Your task to perform on an android device: What is the recent news? Image 0: 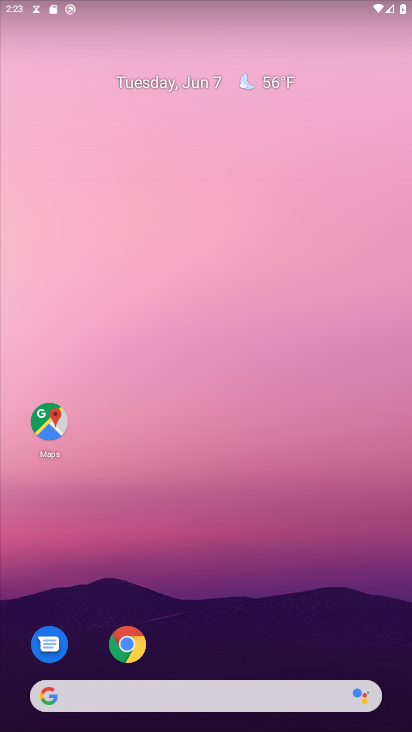
Step 0: press home button
Your task to perform on an android device: What is the recent news? Image 1: 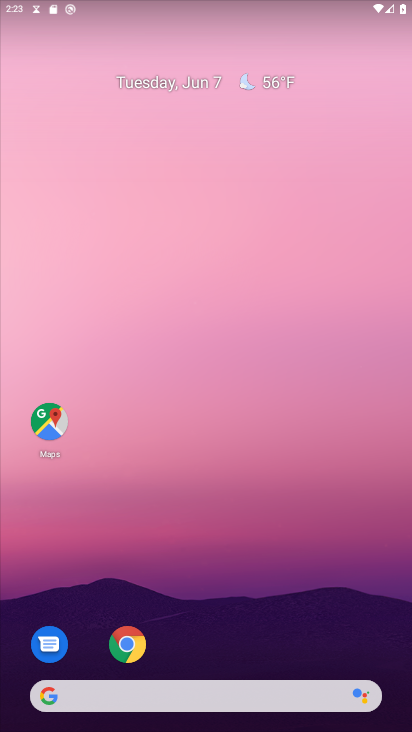
Step 1: drag from (229, 647) to (289, 31)
Your task to perform on an android device: What is the recent news? Image 2: 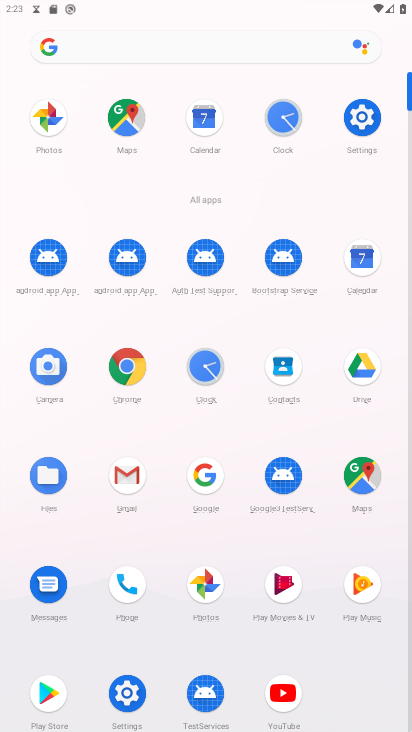
Step 2: press home button
Your task to perform on an android device: What is the recent news? Image 3: 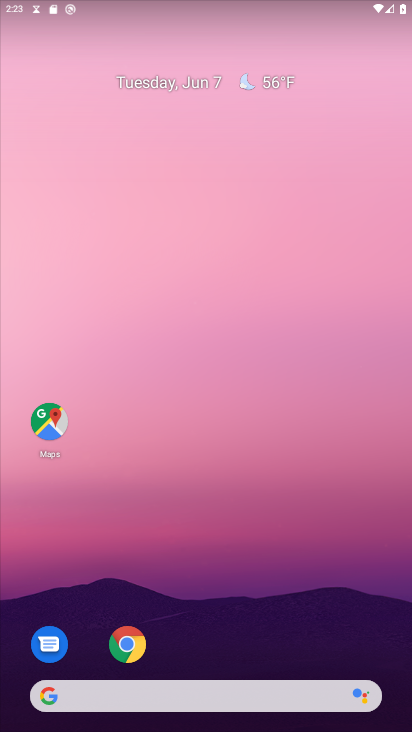
Step 3: drag from (10, 325) to (405, 334)
Your task to perform on an android device: What is the recent news? Image 4: 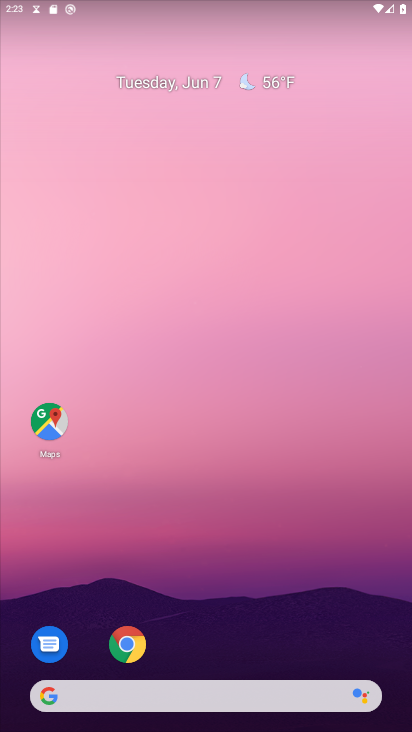
Step 4: drag from (6, 297) to (410, 296)
Your task to perform on an android device: What is the recent news? Image 5: 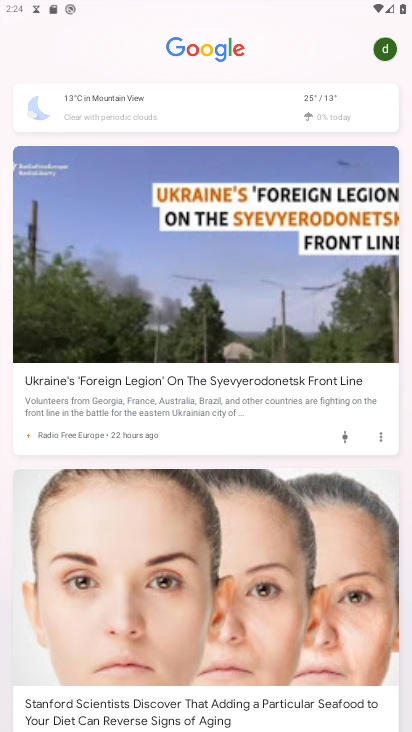
Step 5: drag from (187, 644) to (170, 132)
Your task to perform on an android device: What is the recent news? Image 6: 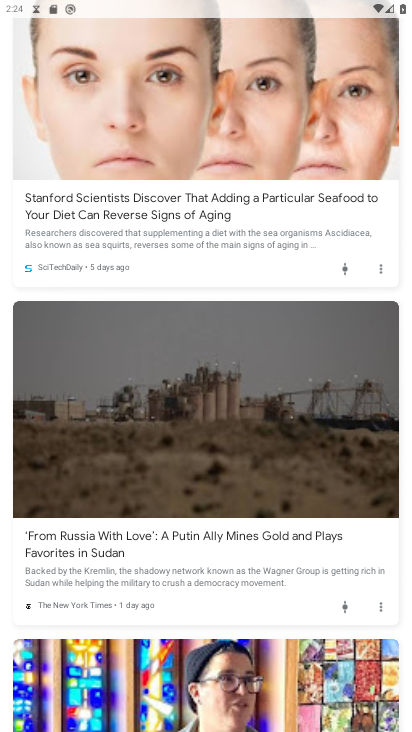
Step 6: drag from (203, 616) to (197, 87)
Your task to perform on an android device: What is the recent news? Image 7: 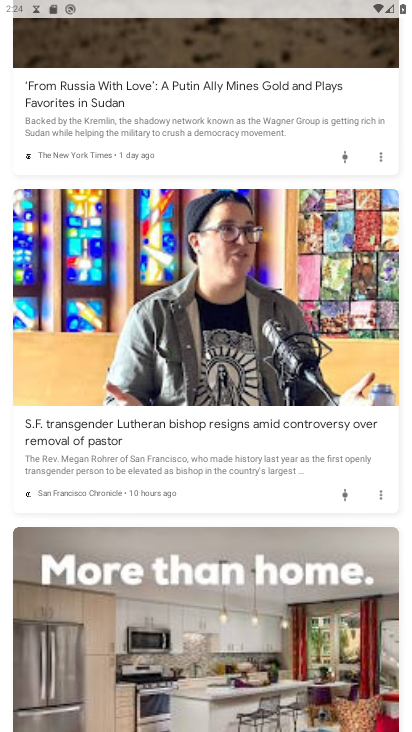
Step 7: drag from (217, 619) to (213, 136)
Your task to perform on an android device: What is the recent news? Image 8: 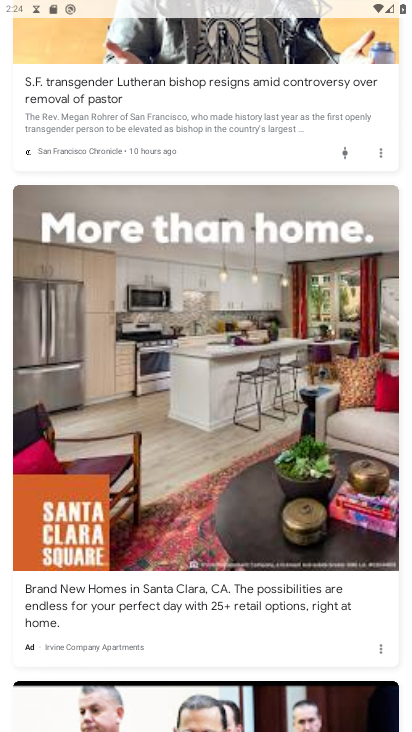
Step 8: drag from (212, 646) to (215, 199)
Your task to perform on an android device: What is the recent news? Image 9: 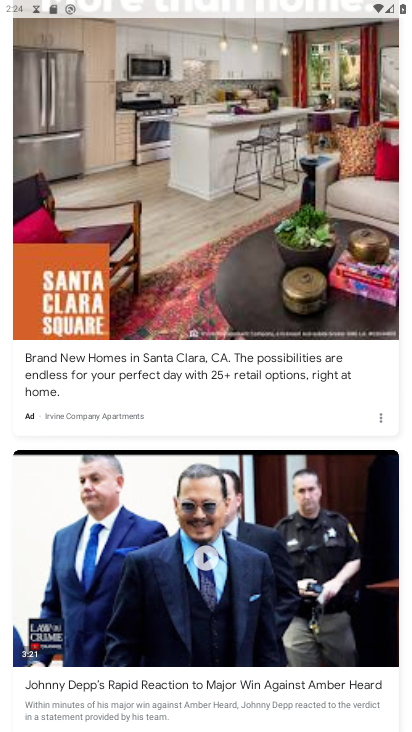
Step 9: click (219, 116)
Your task to perform on an android device: What is the recent news? Image 10: 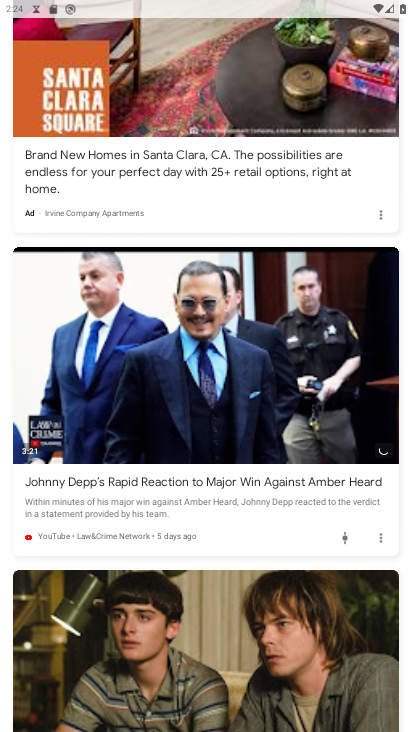
Step 10: task complete